Your task to perform on an android device: change the clock display to show seconds Image 0: 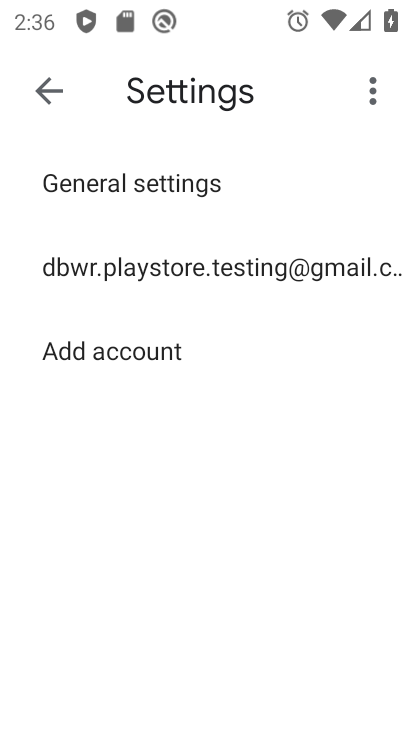
Step 0: press home button
Your task to perform on an android device: change the clock display to show seconds Image 1: 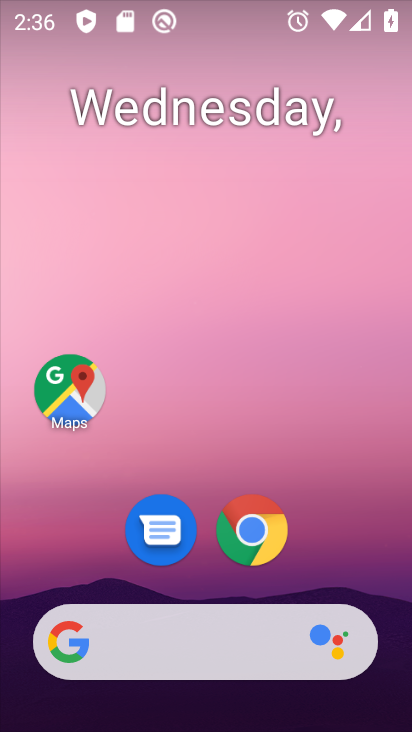
Step 1: drag from (200, 637) to (186, 75)
Your task to perform on an android device: change the clock display to show seconds Image 2: 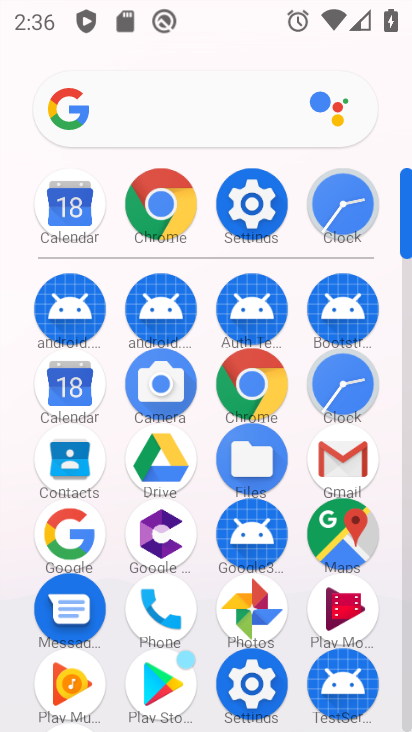
Step 2: click (328, 394)
Your task to perform on an android device: change the clock display to show seconds Image 3: 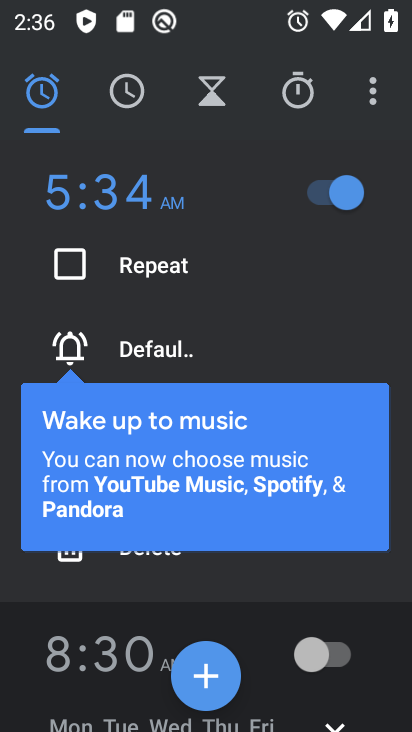
Step 3: click (366, 95)
Your task to perform on an android device: change the clock display to show seconds Image 4: 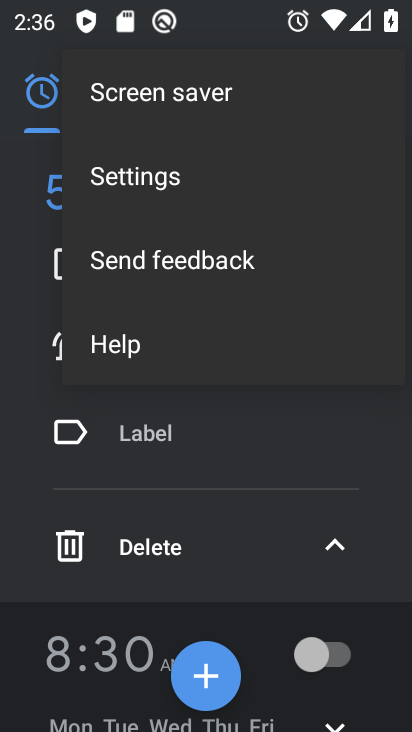
Step 4: click (179, 184)
Your task to perform on an android device: change the clock display to show seconds Image 5: 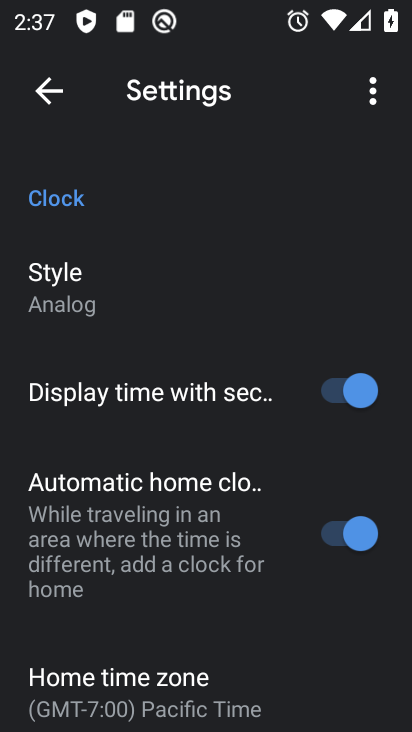
Step 5: task complete